Your task to perform on an android device: add a contact Image 0: 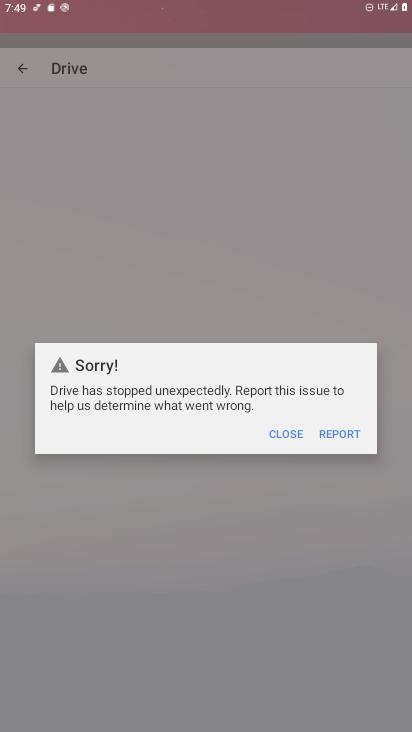
Step 0: click (224, 365)
Your task to perform on an android device: add a contact Image 1: 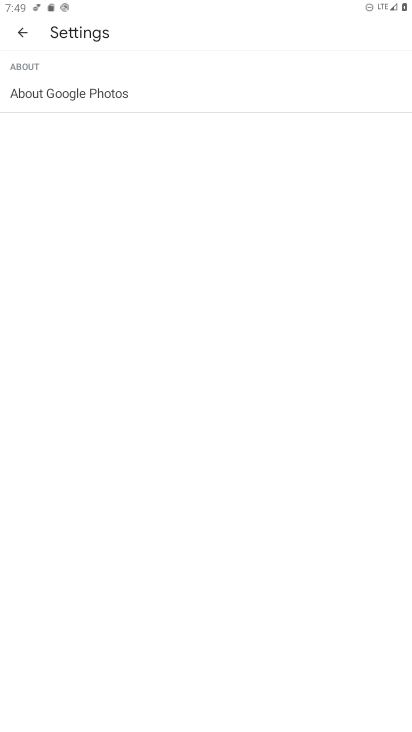
Step 1: press home button
Your task to perform on an android device: add a contact Image 2: 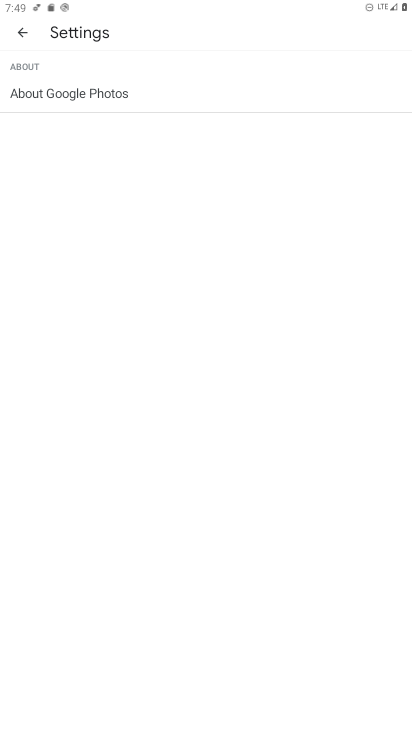
Step 2: press home button
Your task to perform on an android device: add a contact Image 3: 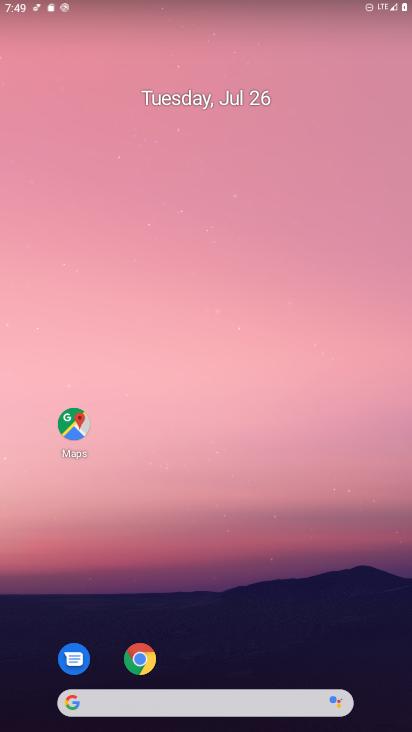
Step 3: drag from (181, 693) to (198, 211)
Your task to perform on an android device: add a contact Image 4: 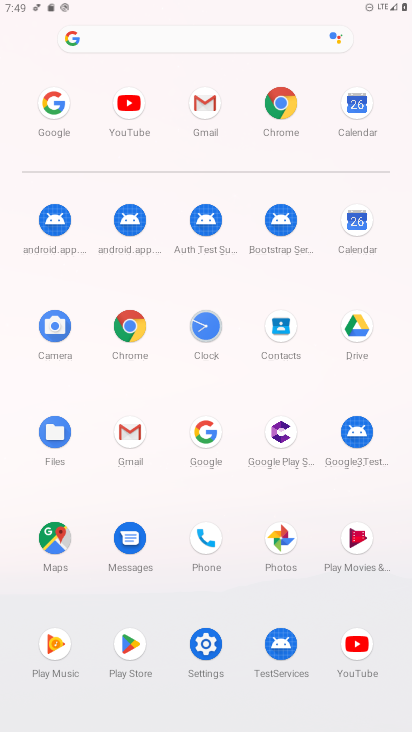
Step 4: click (277, 331)
Your task to perform on an android device: add a contact Image 5: 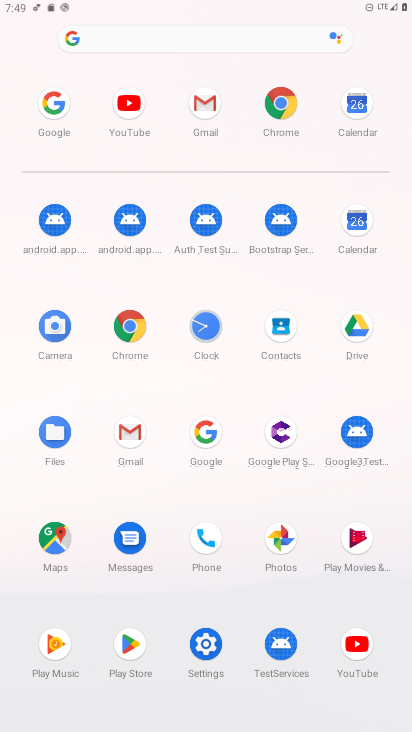
Step 5: click (277, 331)
Your task to perform on an android device: add a contact Image 6: 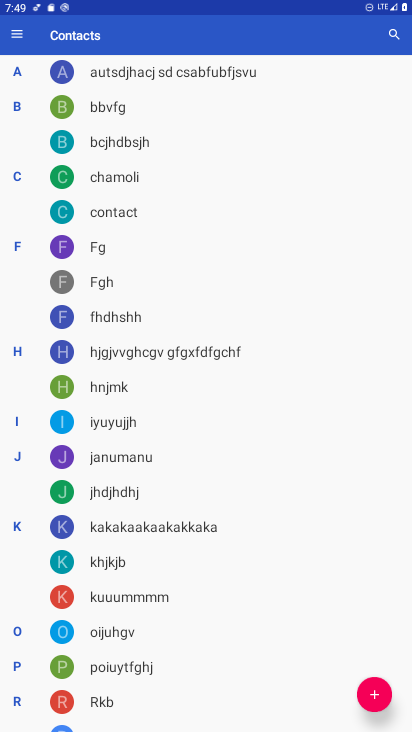
Step 6: drag from (163, 644) to (200, 285)
Your task to perform on an android device: add a contact Image 7: 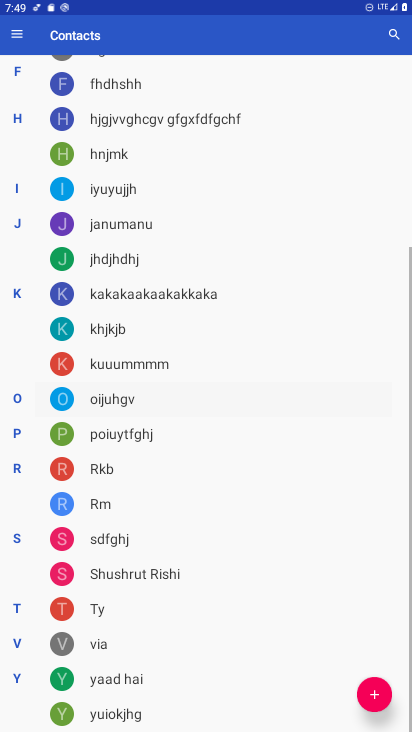
Step 7: drag from (220, 243) to (203, 724)
Your task to perform on an android device: add a contact Image 8: 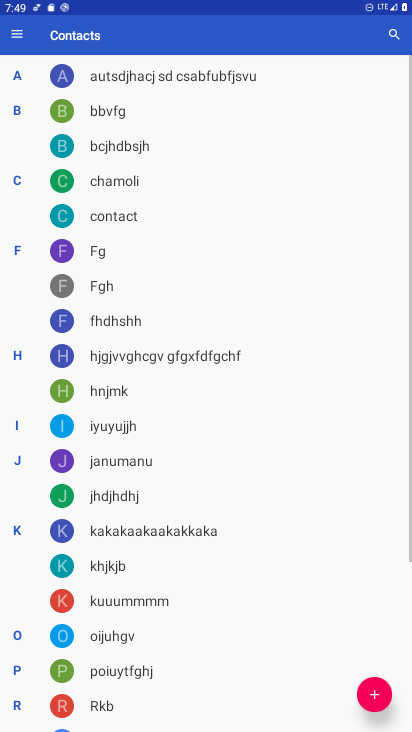
Step 8: click (385, 695)
Your task to perform on an android device: add a contact Image 9: 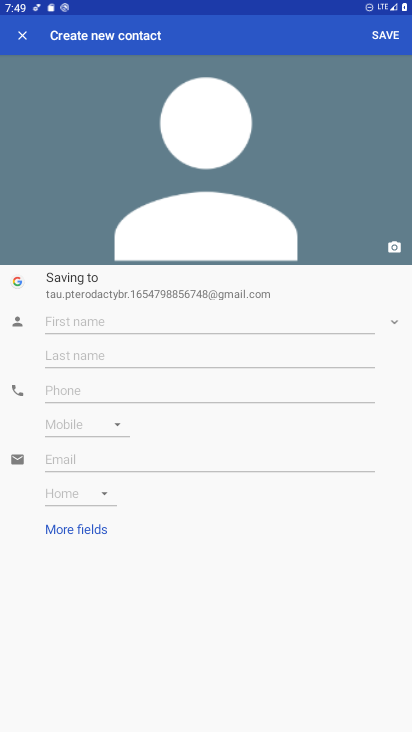
Step 9: click (85, 328)
Your task to perform on an android device: add a contact Image 10: 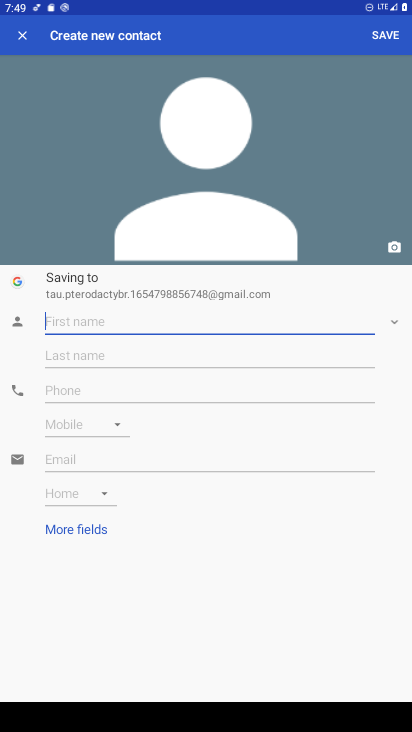
Step 10: type "mjhbfvbj"
Your task to perform on an android device: add a contact Image 11: 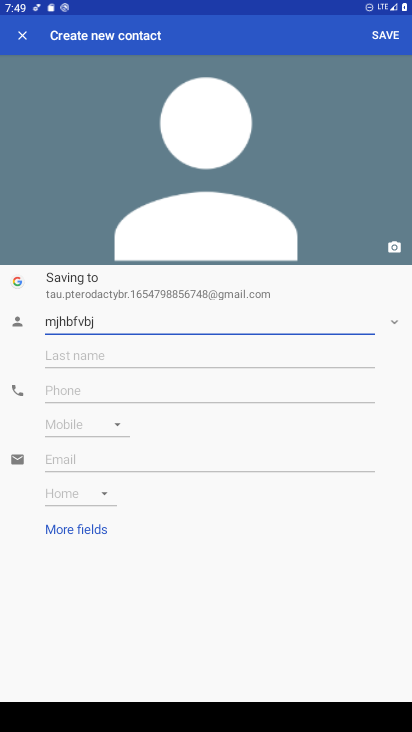
Step 11: click (52, 391)
Your task to perform on an android device: add a contact Image 12: 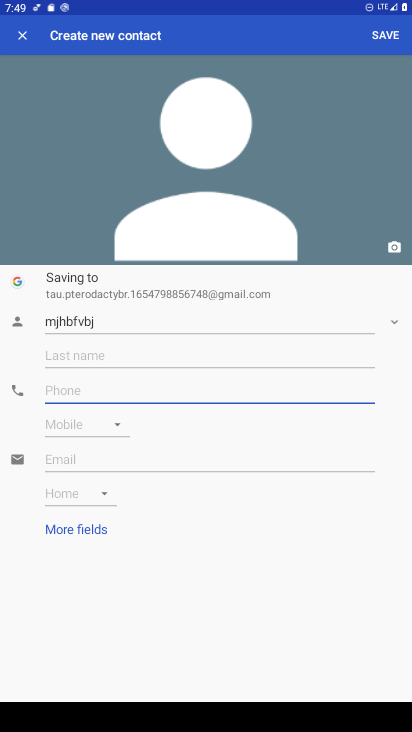
Step 12: type "7665797"
Your task to perform on an android device: add a contact Image 13: 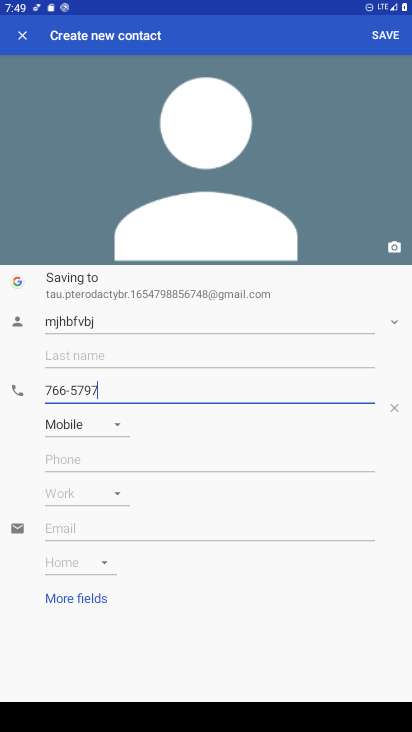
Step 13: click (382, 39)
Your task to perform on an android device: add a contact Image 14: 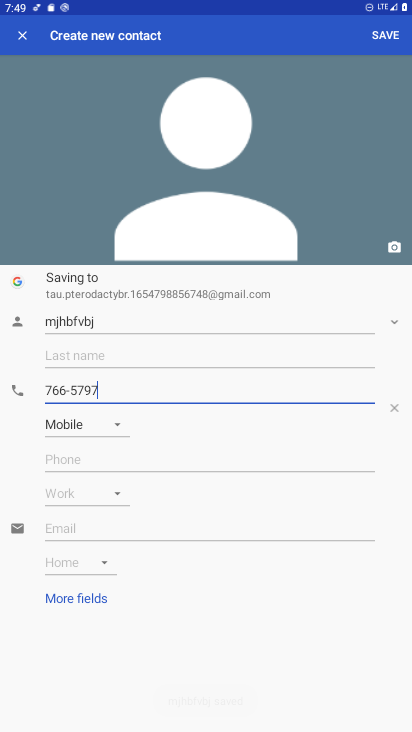
Step 14: task complete